Your task to perform on an android device: toggle sleep mode Image 0: 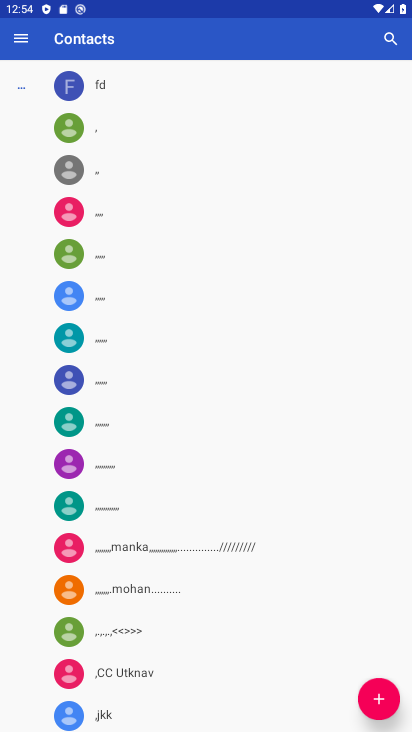
Step 0: press home button
Your task to perform on an android device: toggle sleep mode Image 1: 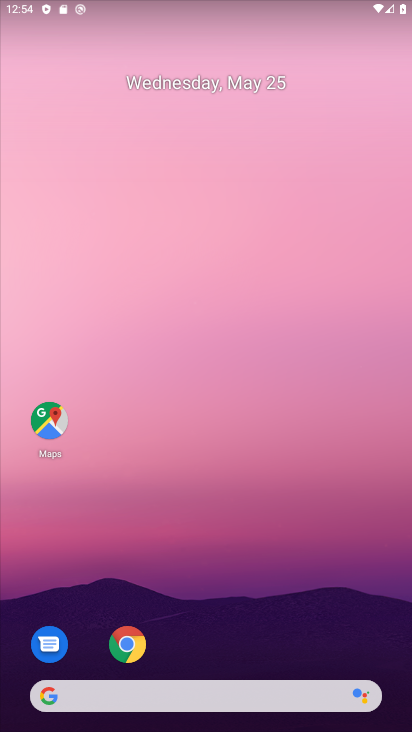
Step 1: drag from (191, 659) to (156, 14)
Your task to perform on an android device: toggle sleep mode Image 2: 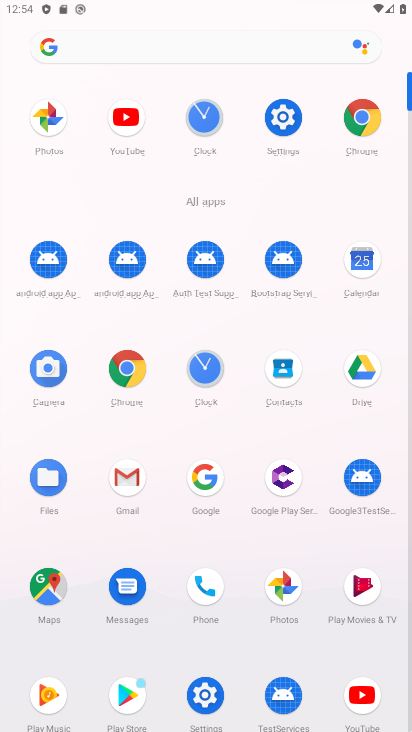
Step 2: click (280, 123)
Your task to perform on an android device: toggle sleep mode Image 3: 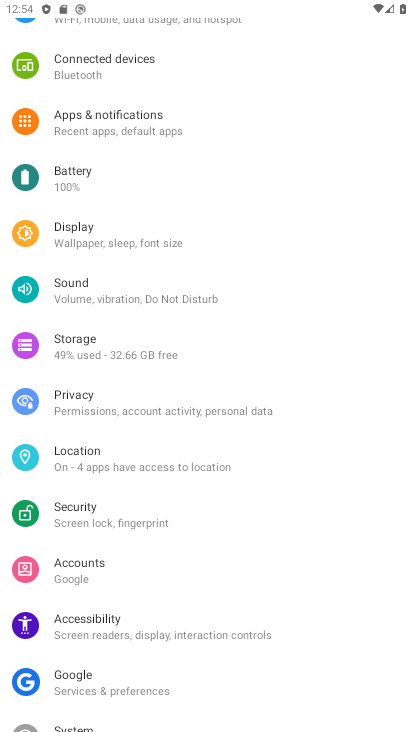
Step 3: task complete